Your task to perform on an android device: Go to eBay Image 0: 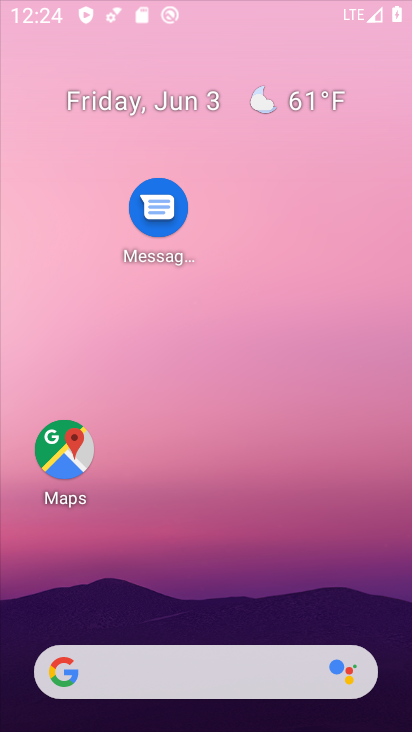
Step 0: drag from (235, 643) to (203, 27)
Your task to perform on an android device: Go to eBay Image 1: 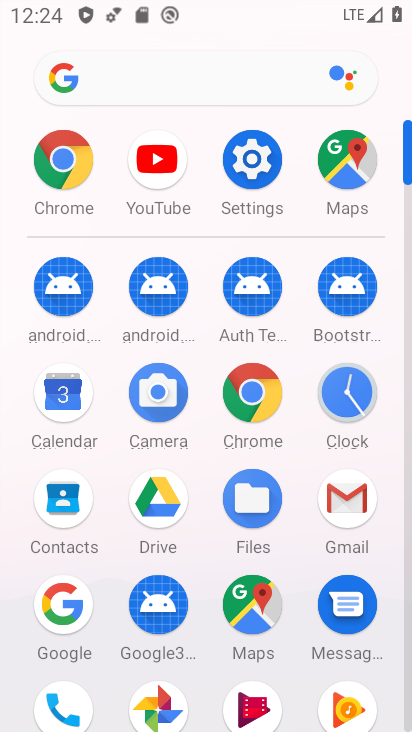
Step 1: click (54, 182)
Your task to perform on an android device: Go to eBay Image 2: 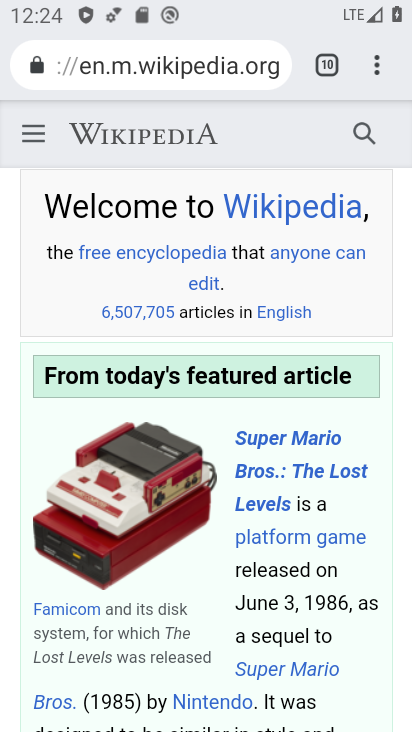
Step 2: click (314, 73)
Your task to perform on an android device: Go to eBay Image 3: 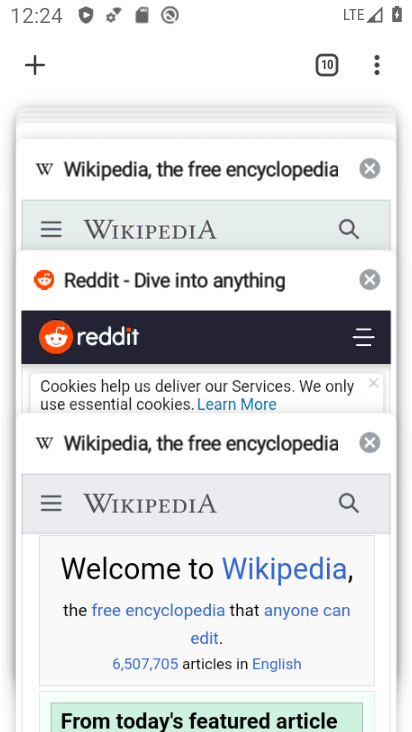
Step 3: click (32, 53)
Your task to perform on an android device: Go to eBay Image 4: 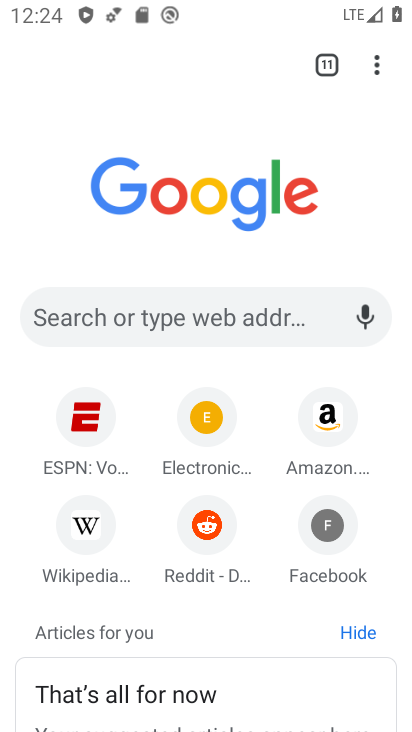
Step 4: click (209, 317)
Your task to perform on an android device: Go to eBay Image 5: 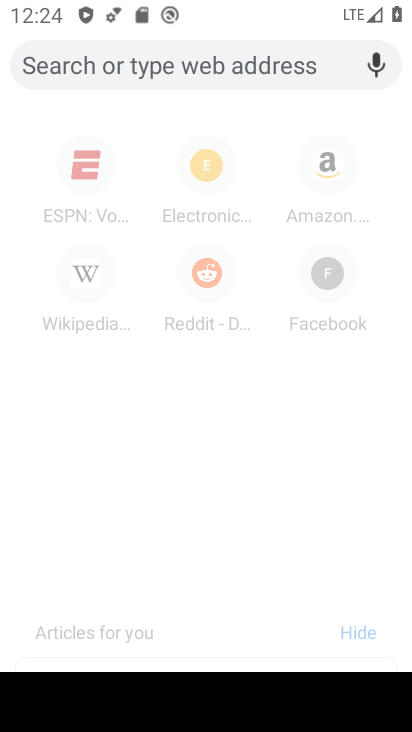
Step 5: click (199, 202)
Your task to perform on an android device: Go to eBay Image 6: 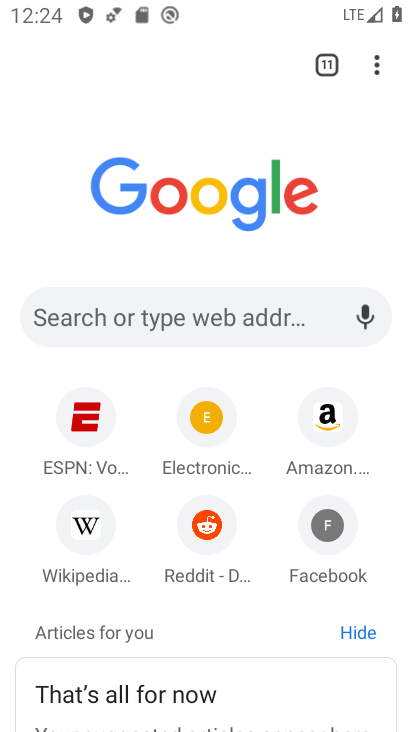
Step 6: click (227, 418)
Your task to perform on an android device: Go to eBay Image 7: 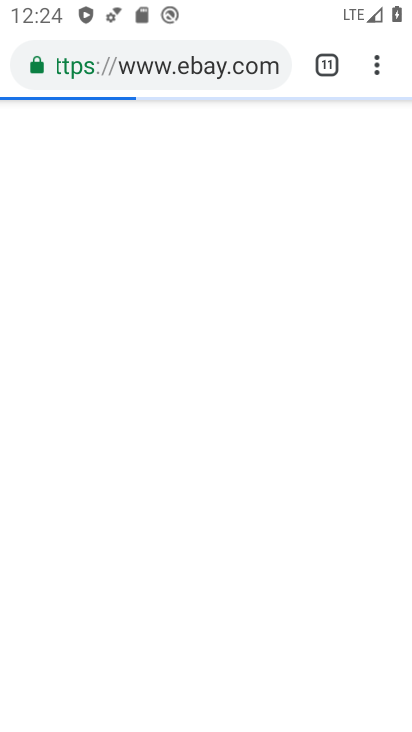
Step 7: task complete